Your task to perform on an android device: Open sound settings Image 0: 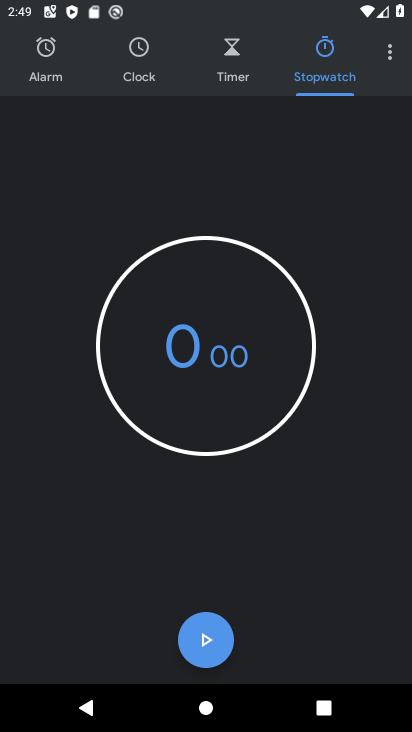
Step 0: press home button
Your task to perform on an android device: Open sound settings Image 1: 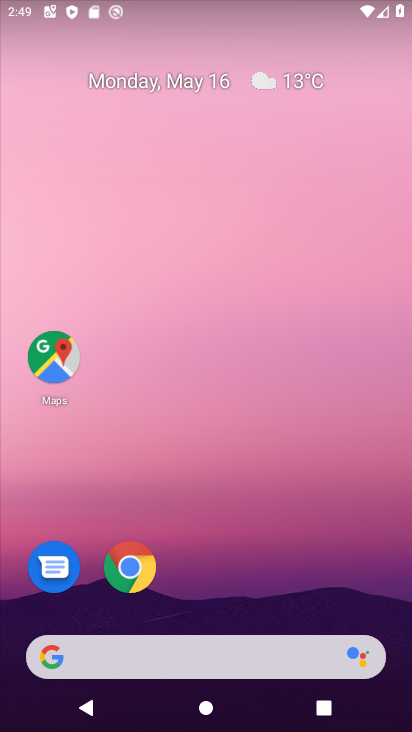
Step 1: drag from (292, 612) to (229, 108)
Your task to perform on an android device: Open sound settings Image 2: 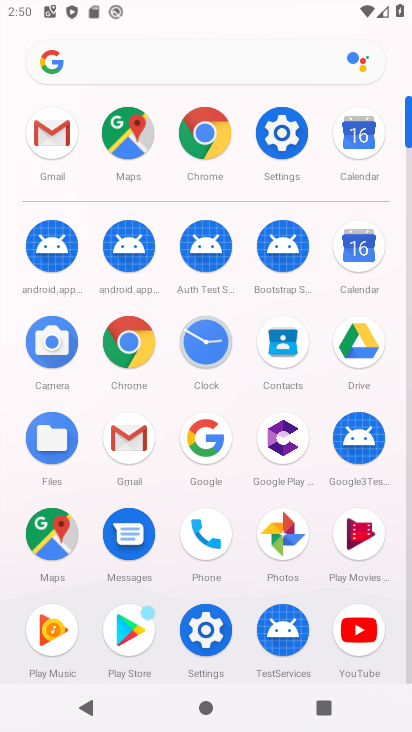
Step 2: click (283, 121)
Your task to perform on an android device: Open sound settings Image 3: 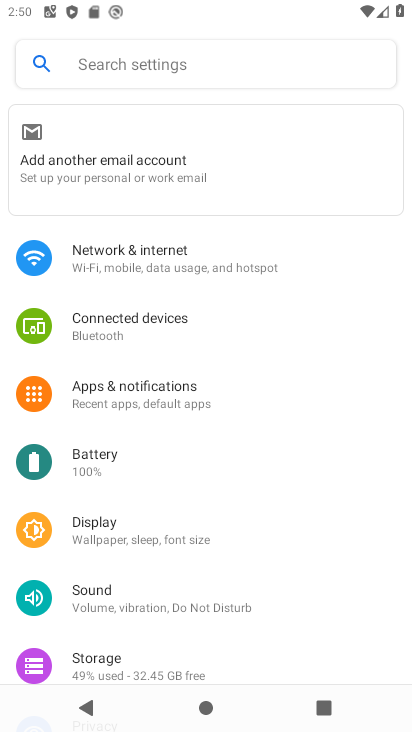
Step 3: click (142, 602)
Your task to perform on an android device: Open sound settings Image 4: 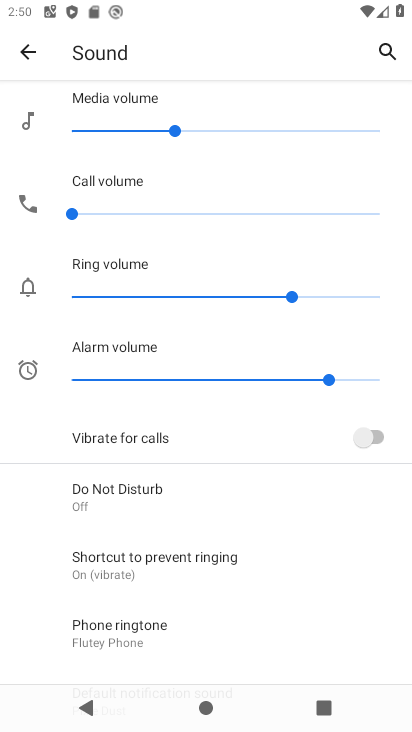
Step 4: task complete